Your task to perform on an android device: Search for desk lamps on article.com Image 0: 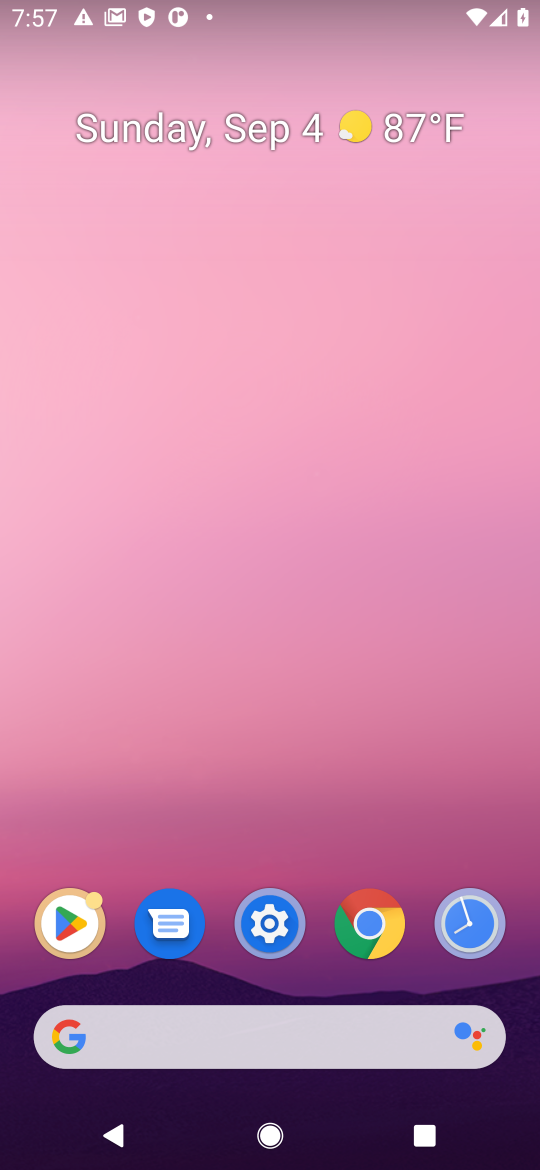
Step 0: press home button
Your task to perform on an android device: Search for desk lamps on article.com Image 1: 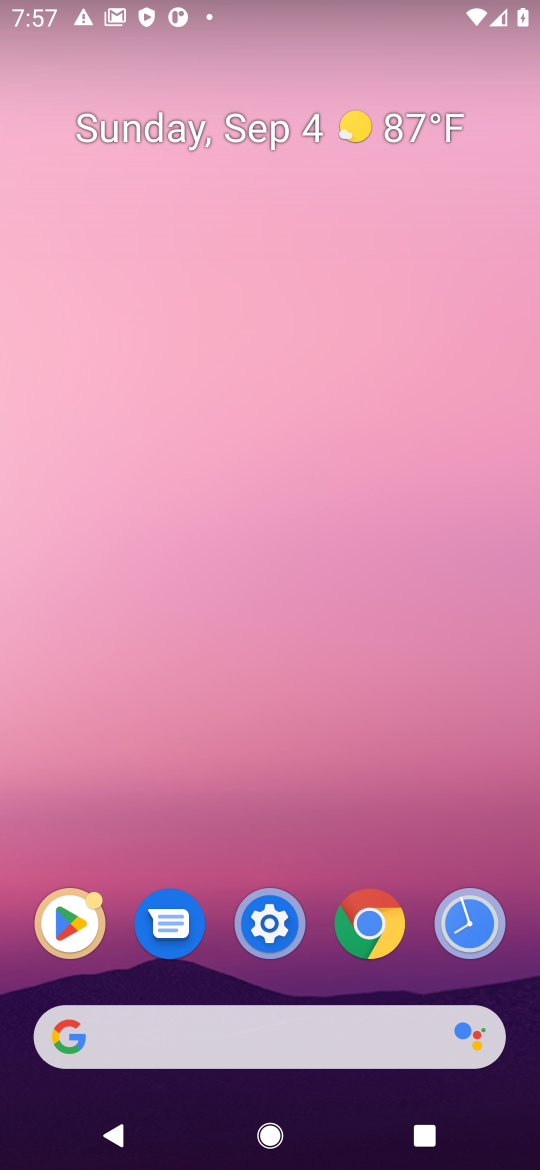
Step 1: click (381, 1045)
Your task to perform on an android device: Search for desk lamps on article.com Image 2: 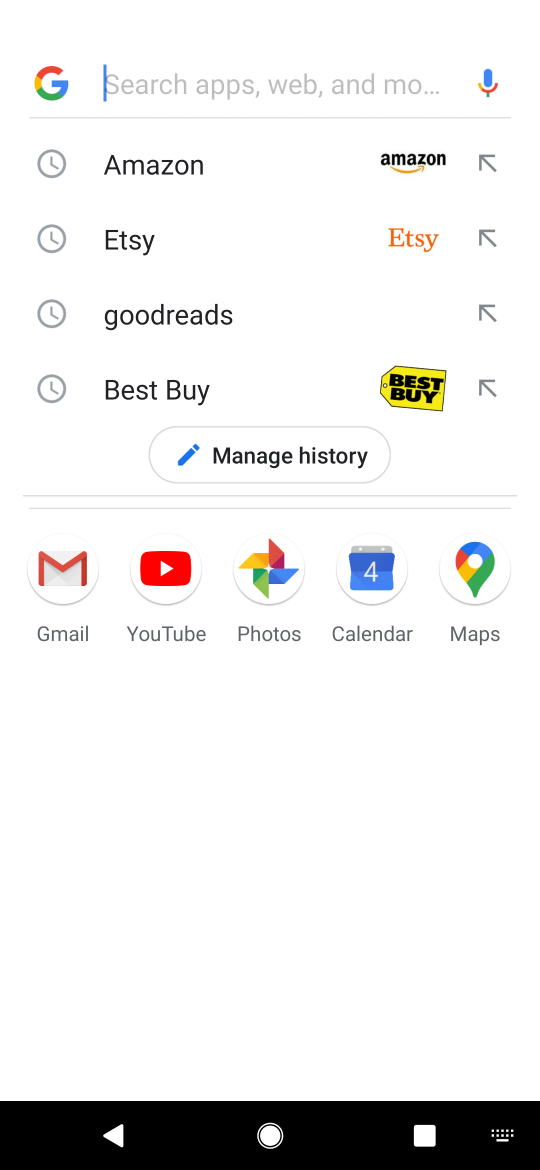
Step 2: press enter
Your task to perform on an android device: Search for desk lamps on article.com Image 3: 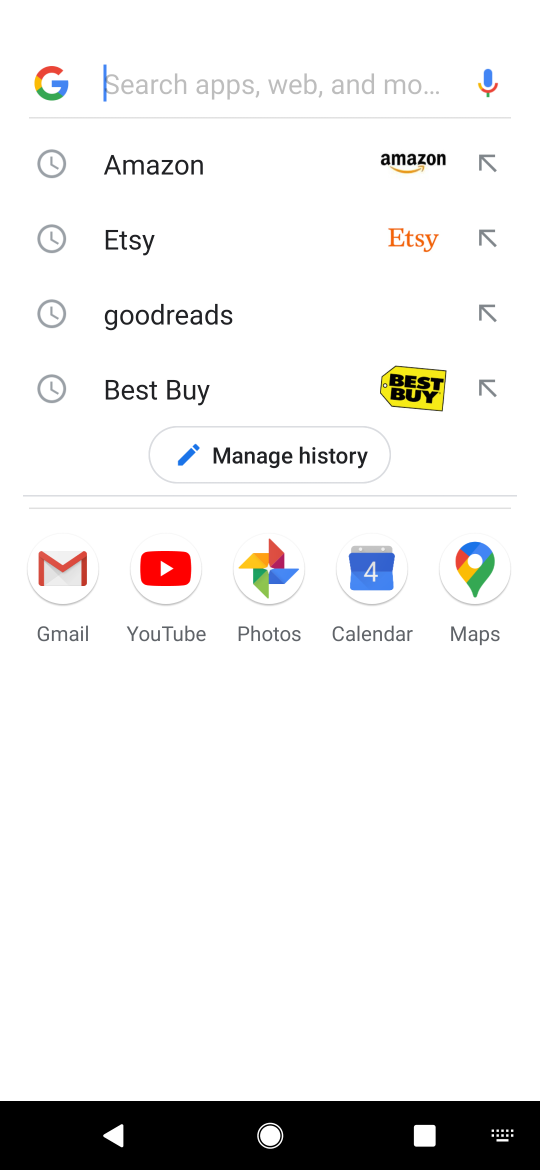
Step 3: type "article.com"
Your task to perform on an android device: Search for desk lamps on article.com Image 4: 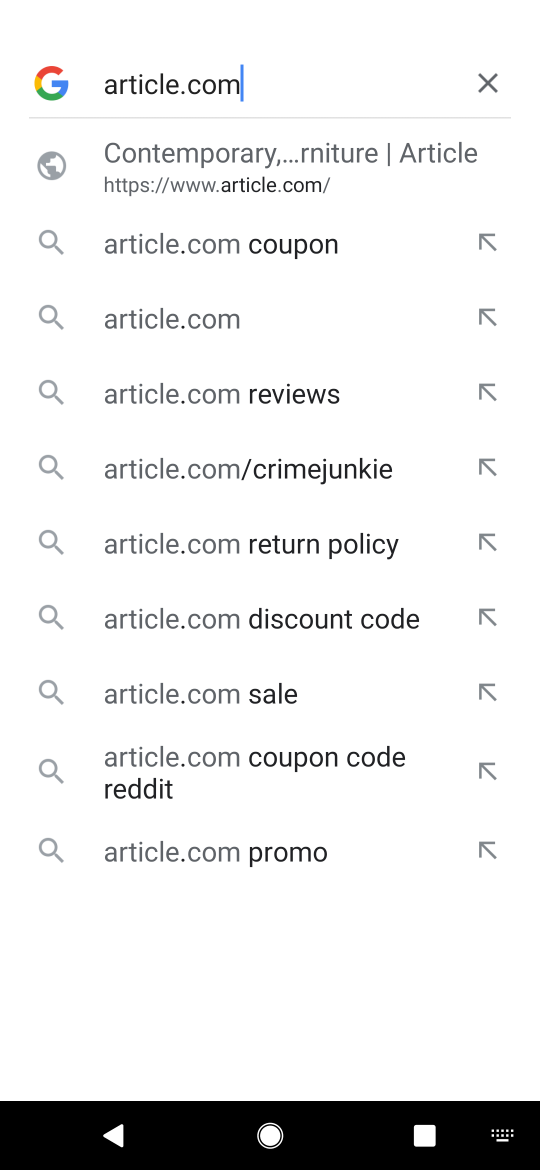
Step 4: click (230, 169)
Your task to perform on an android device: Search for desk lamps on article.com Image 5: 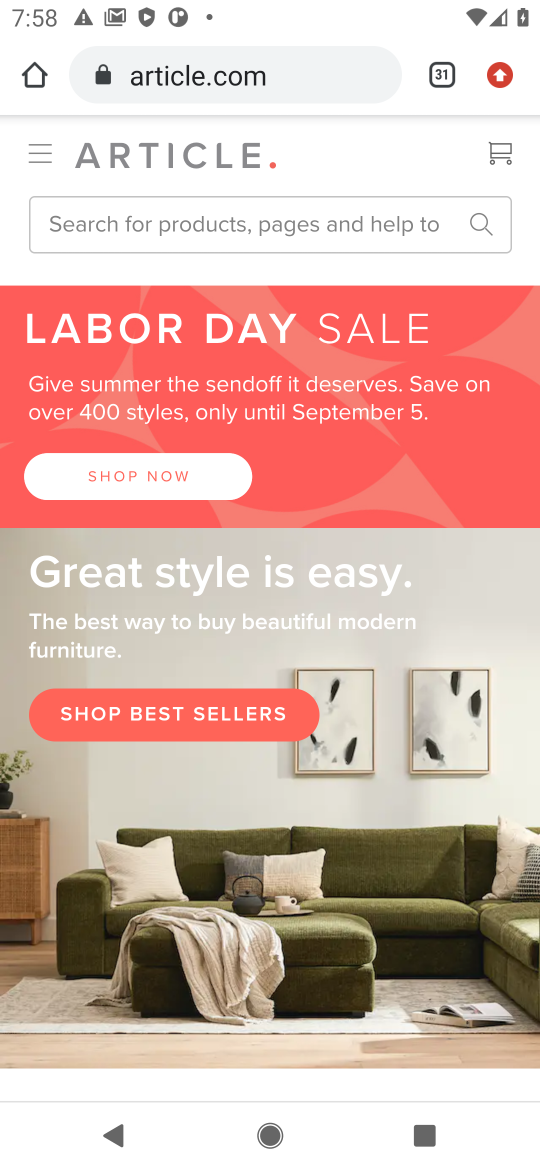
Step 5: click (126, 229)
Your task to perform on an android device: Search for desk lamps on article.com Image 6: 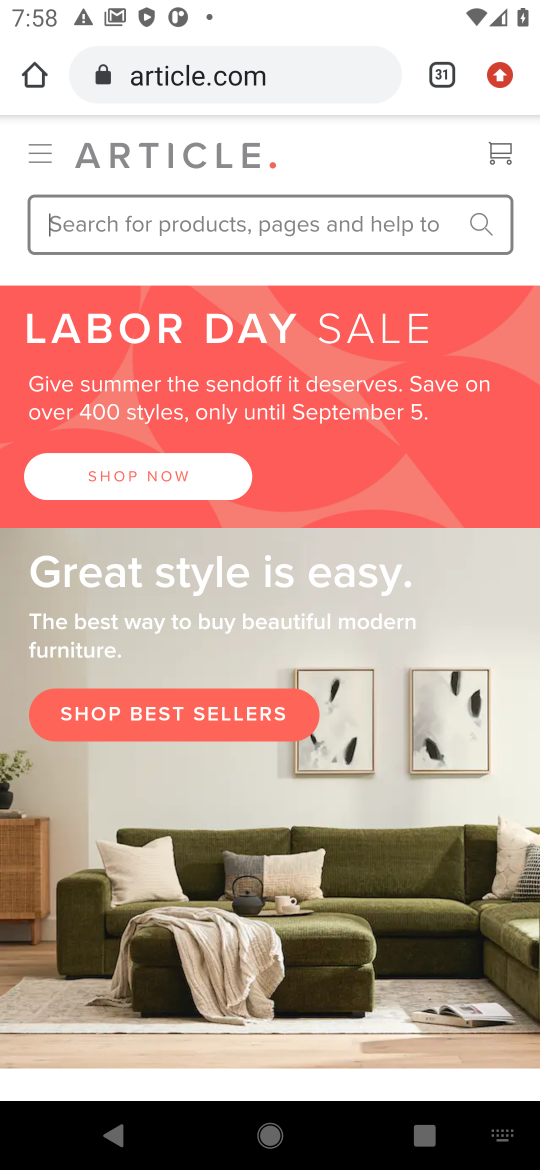
Step 6: press enter
Your task to perform on an android device: Search for desk lamps on article.com Image 7: 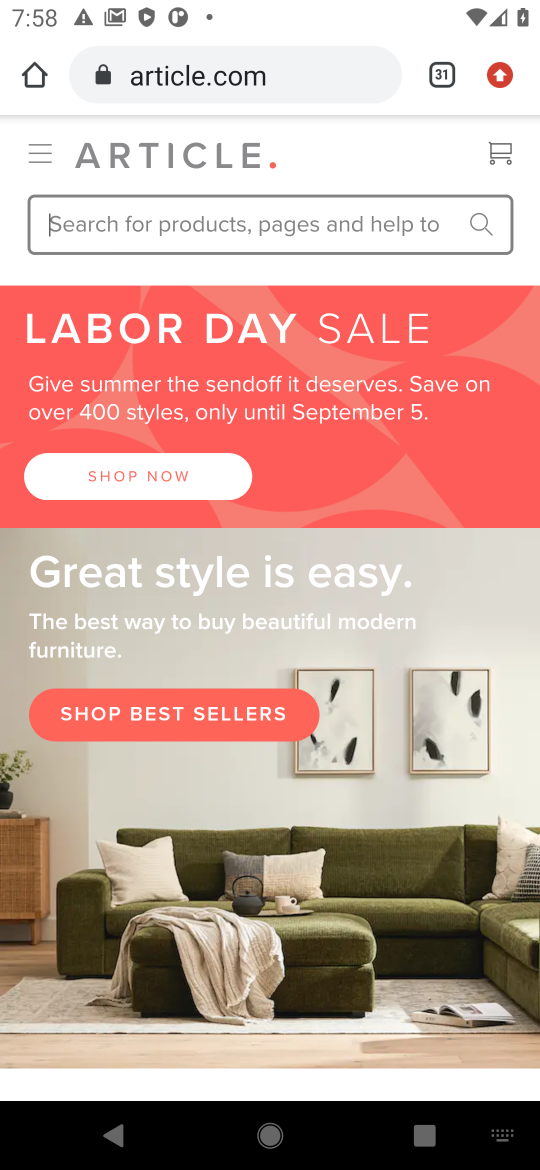
Step 7: type "desk lamps"
Your task to perform on an android device: Search for desk lamps on article.com Image 8: 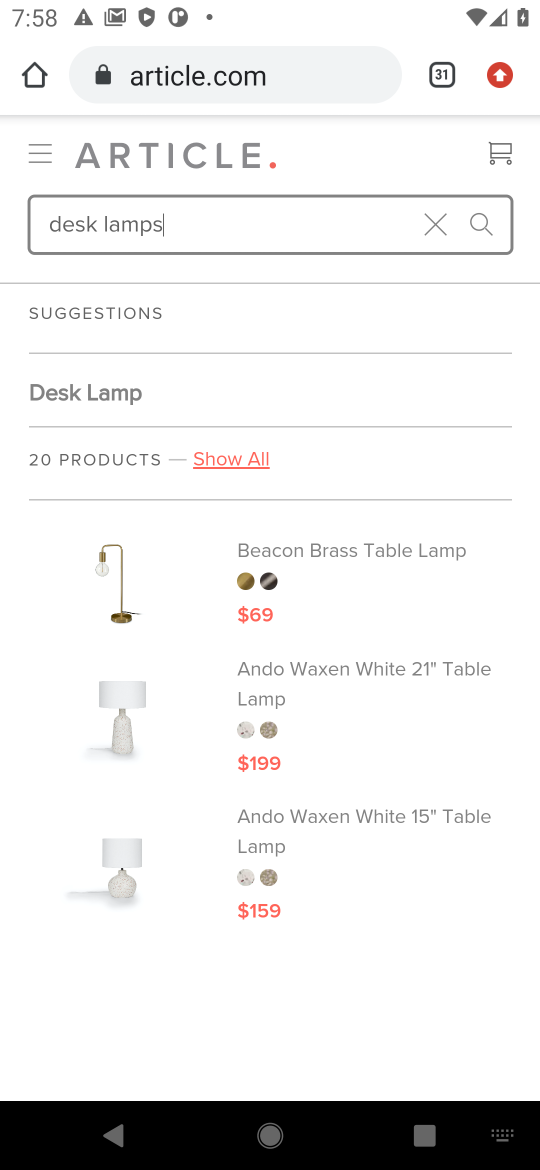
Step 8: task complete